Your task to perform on an android device: Empty the shopping cart on amazon. Search for "logitech g pro" on amazon, select the first entry, and add it to the cart. Image 0: 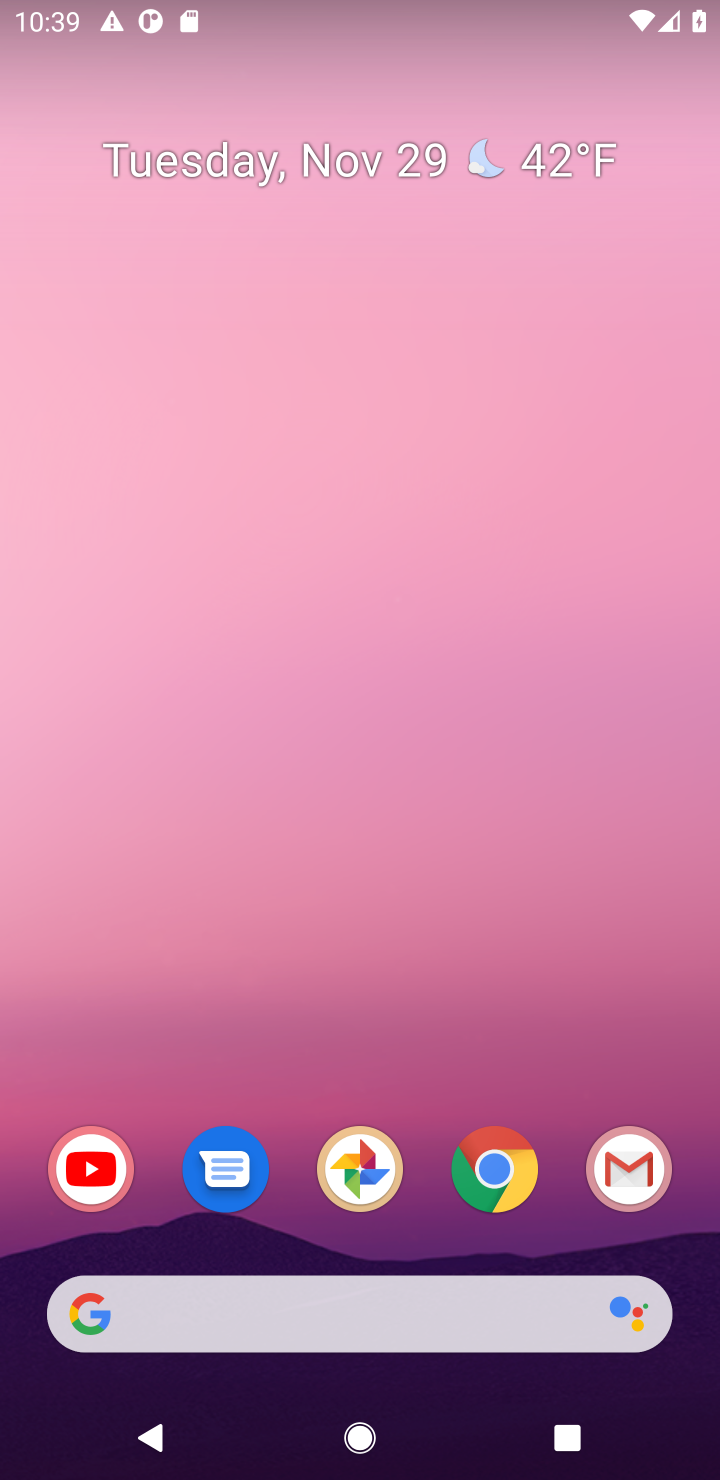
Step 0: click (400, 1336)
Your task to perform on an android device: Empty the shopping cart on amazon. Search for "logitech g pro" on amazon, select the first entry, and add it to the cart. Image 1: 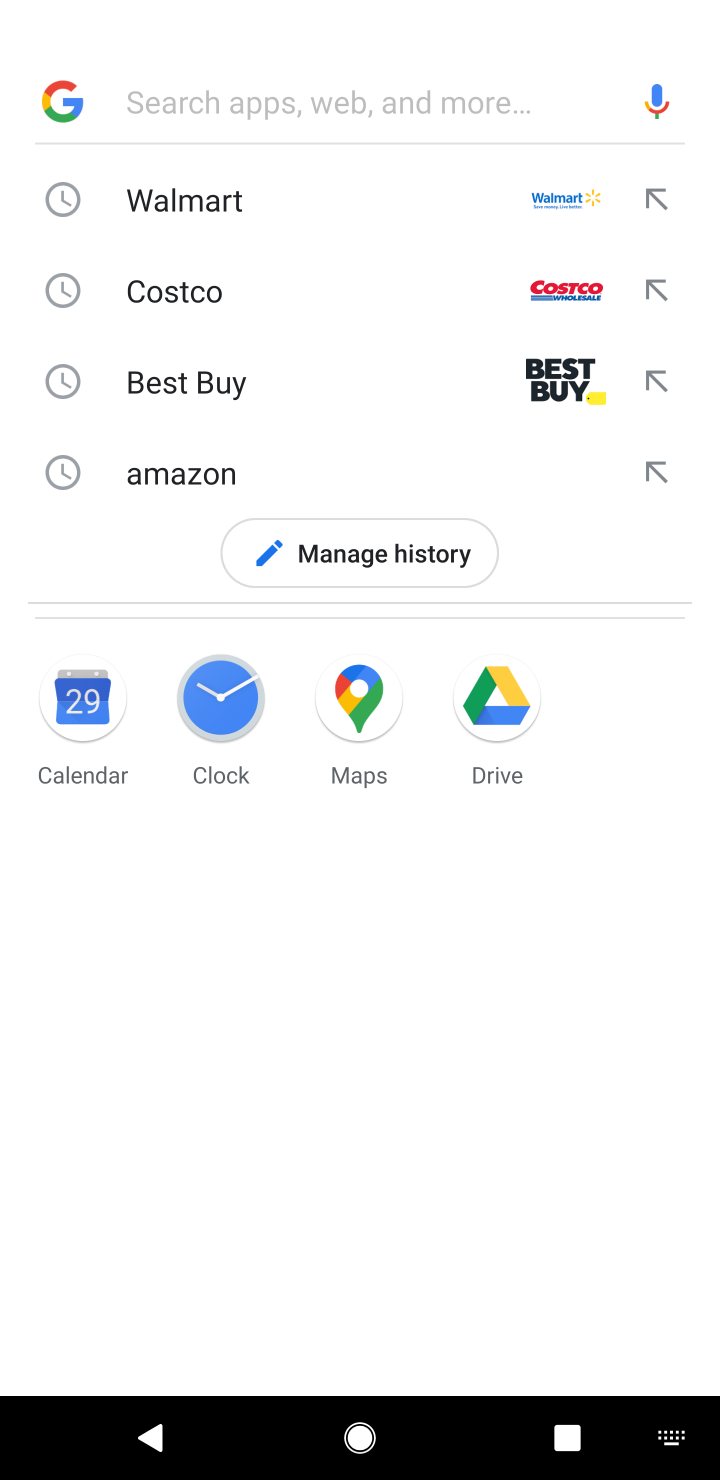
Step 1: type "amazon"
Your task to perform on an android device: Empty the shopping cart on amazon. Search for "logitech g pro" on amazon, select the first entry, and add it to the cart. Image 2: 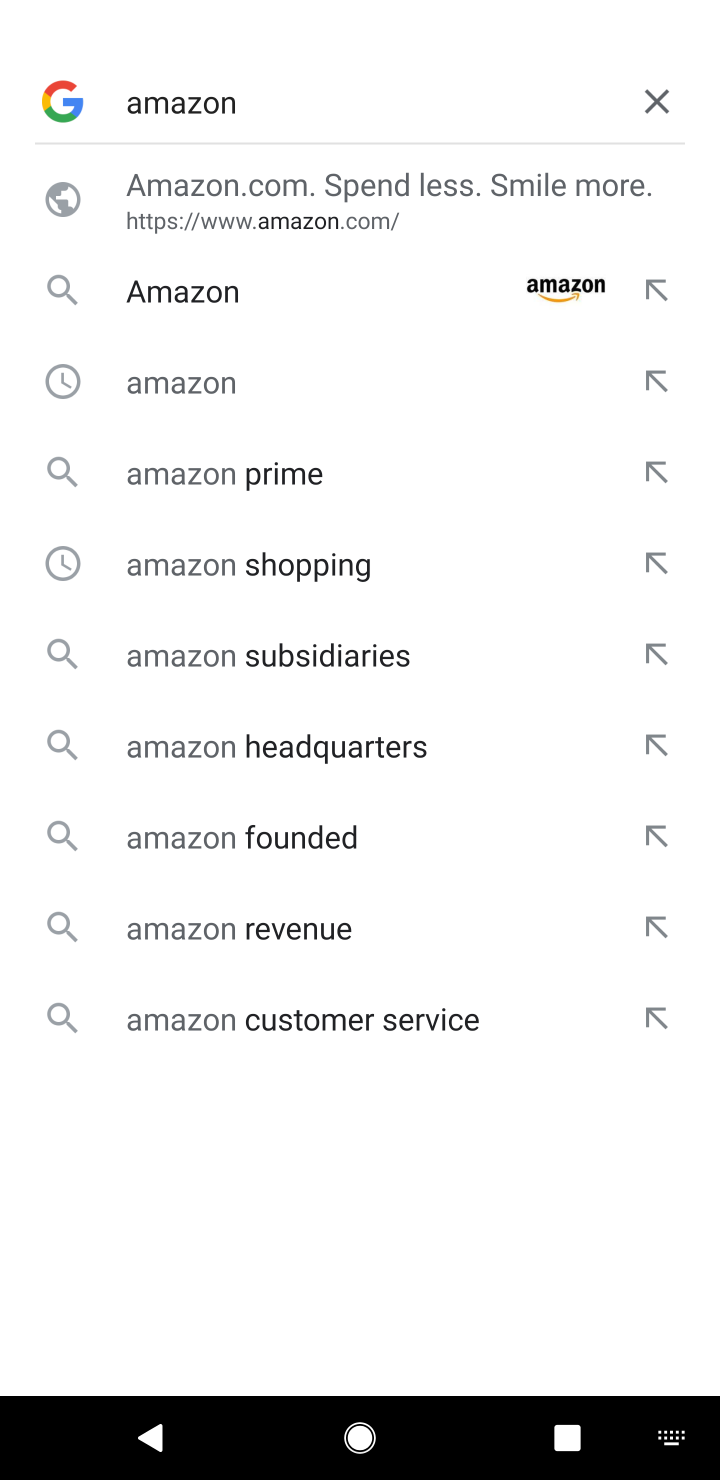
Step 2: click (224, 296)
Your task to perform on an android device: Empty the shopping cart on amazon. Search for "logitech g pro" on amazon, select the first entry, and add it to the cart. Image 3: 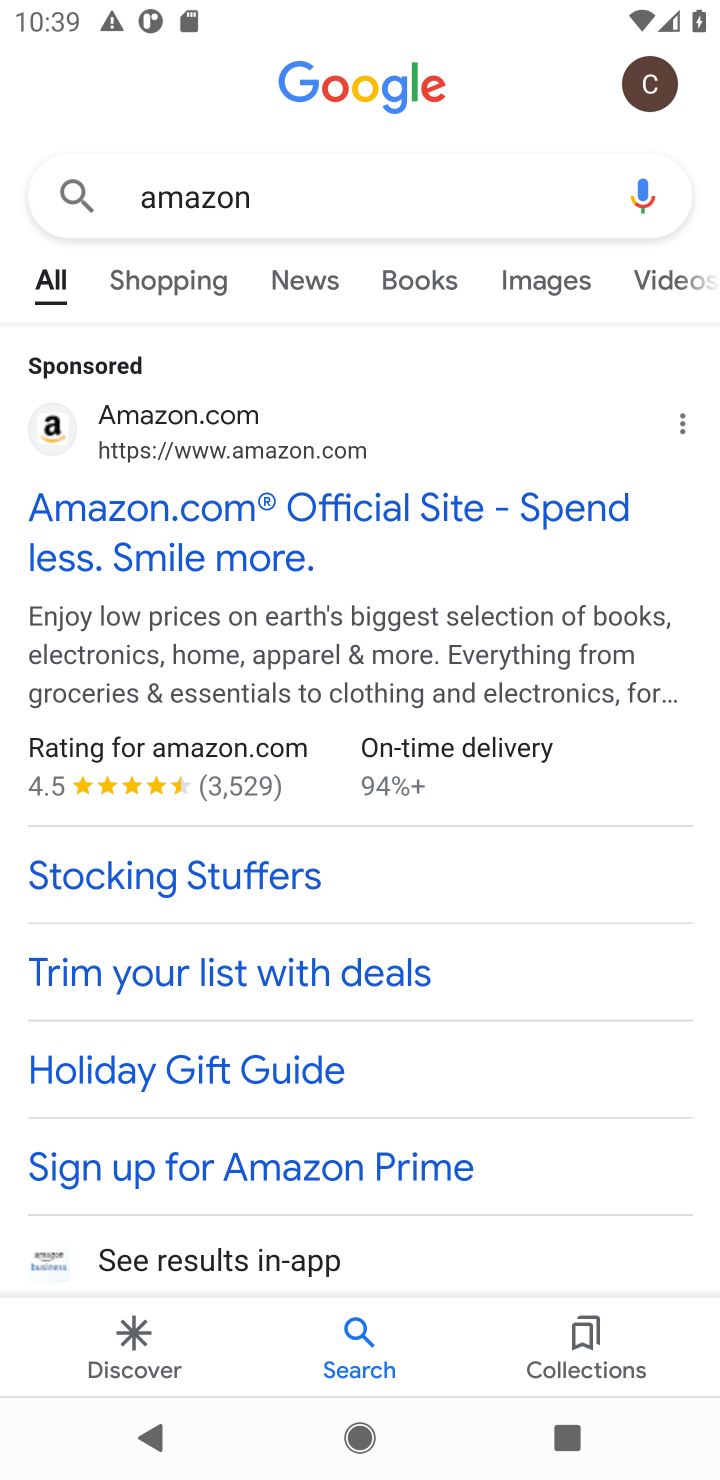
Step 3: click (166, 555)
Your task to perform on an android device: Empty the shopping cart on amazon. Search for "logitech g pro" on amazon, select the first entry, and add it to the cart. Image 4: 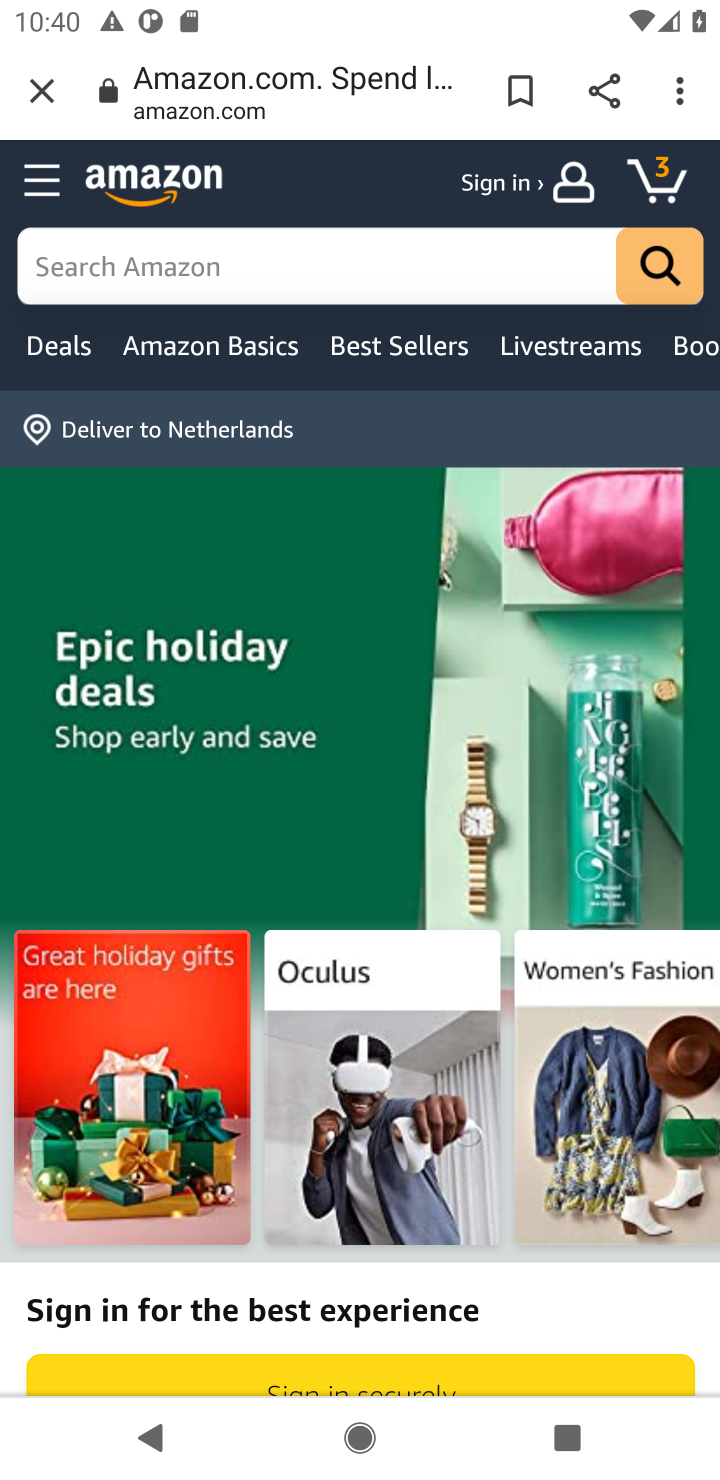
Step 4: click (223, 253)
Your task to perform on an android device: Empty the shopping cart on amazon. Search for "logitech g pro" on amazon, select the first entry, and add it to the cart. Image 5: 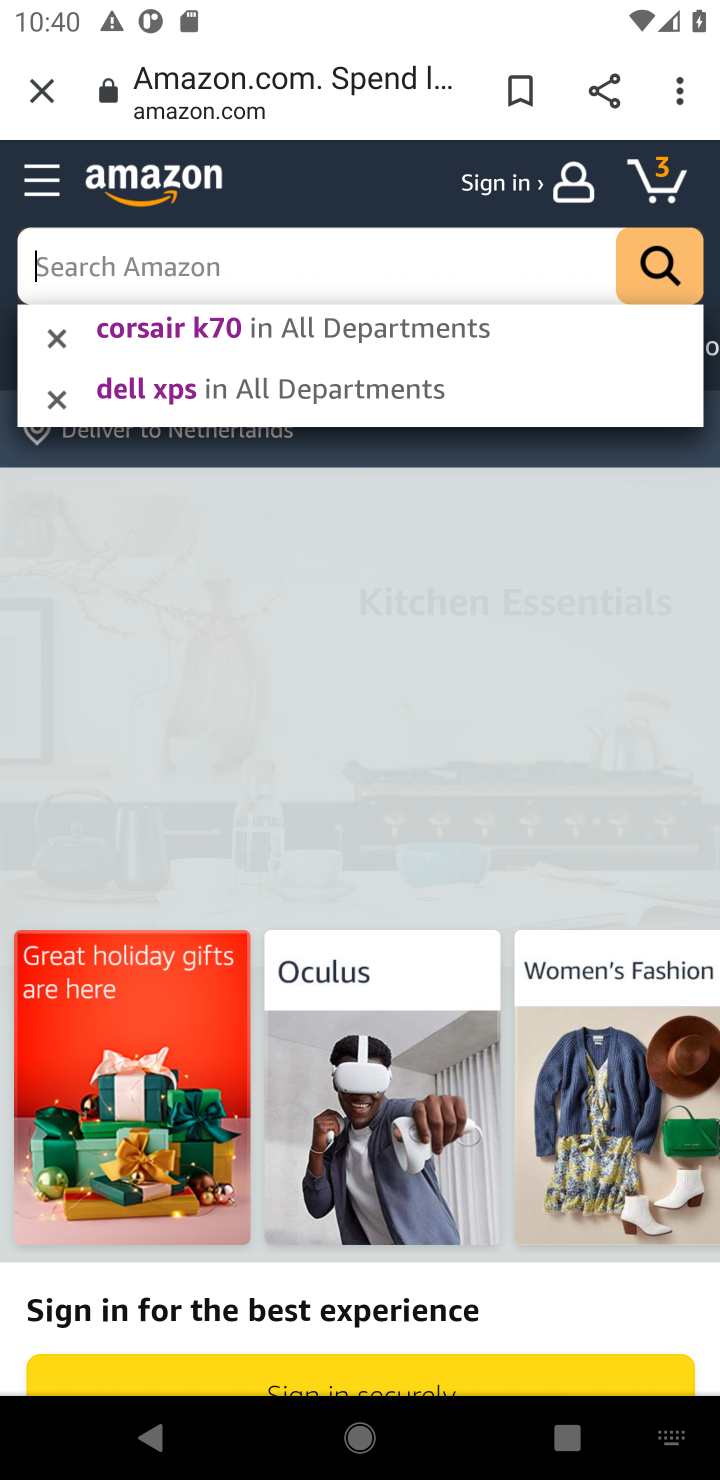
Step 5: type "logitech gpro"
Your task to perform on an android device: Empty the shopping cart on amazon. Search for "logitech g pro" on amazon, select the first entry, and add it to the cart. Image 6: 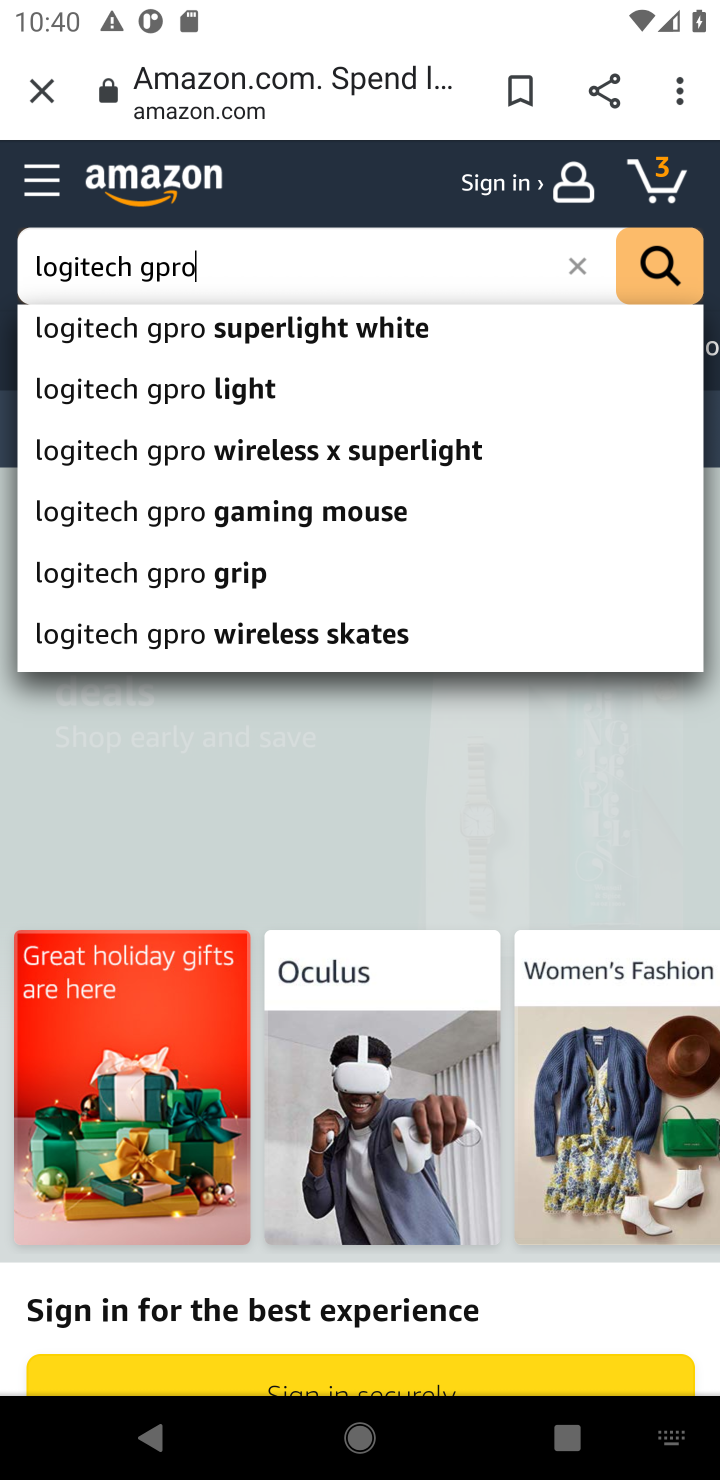
Step 6: click (140, 396)
Your task to perform on an android device: Empty the shopping cart on amazon. Search for "logitech g pro" on amazon, select the first entry, and add it to the cart. Image 7: 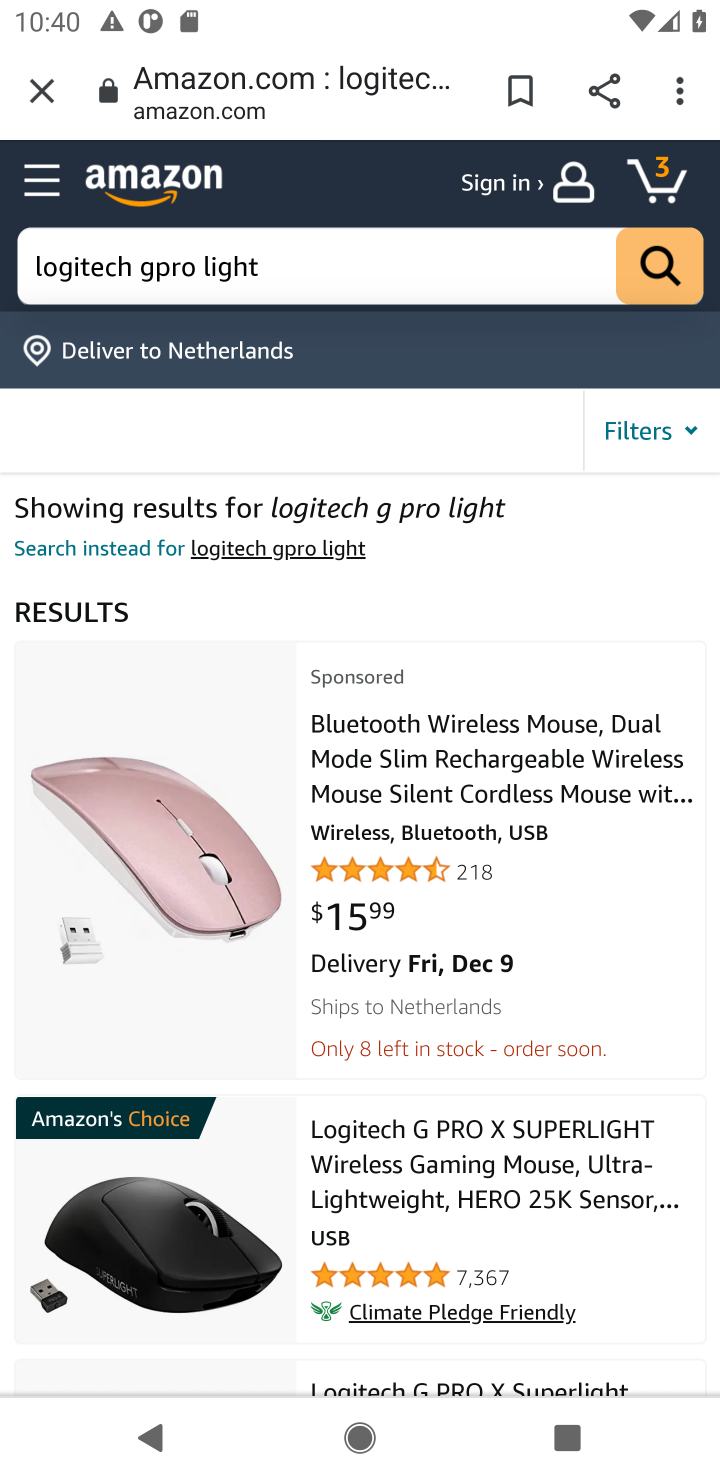
Step 7: click (483, 797)
Your task to perform on an android device: Empty the shopping cart on amazon. Search for "logitech g pro" on amazon, select the first entry, and add it to the cart. Image 8: 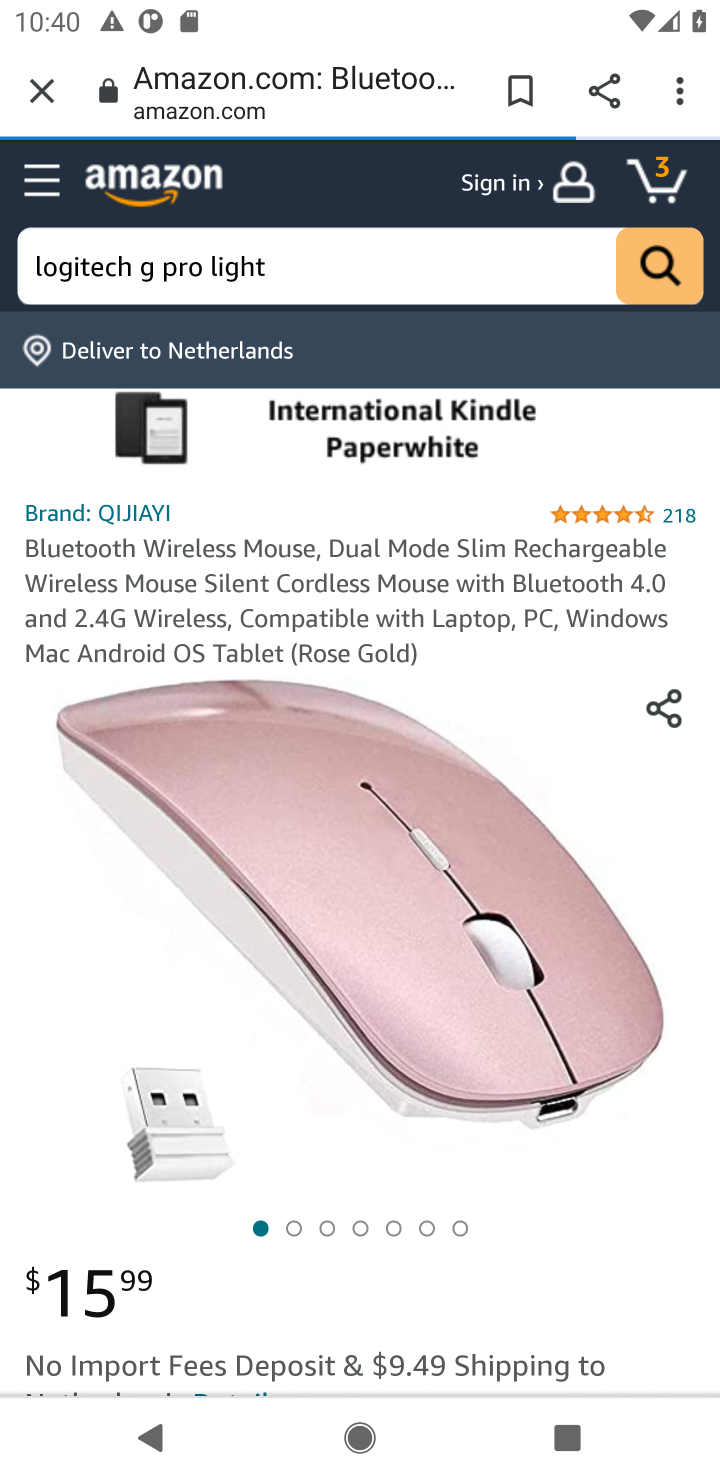
Step 8: drag from (541, 1290) to (447, 432)
Your task to perform on an android device: Empty the shopping cart on amazon. Search for "logitech g pro" on amazon, select the first entry, and add it to the cart. Image 9: 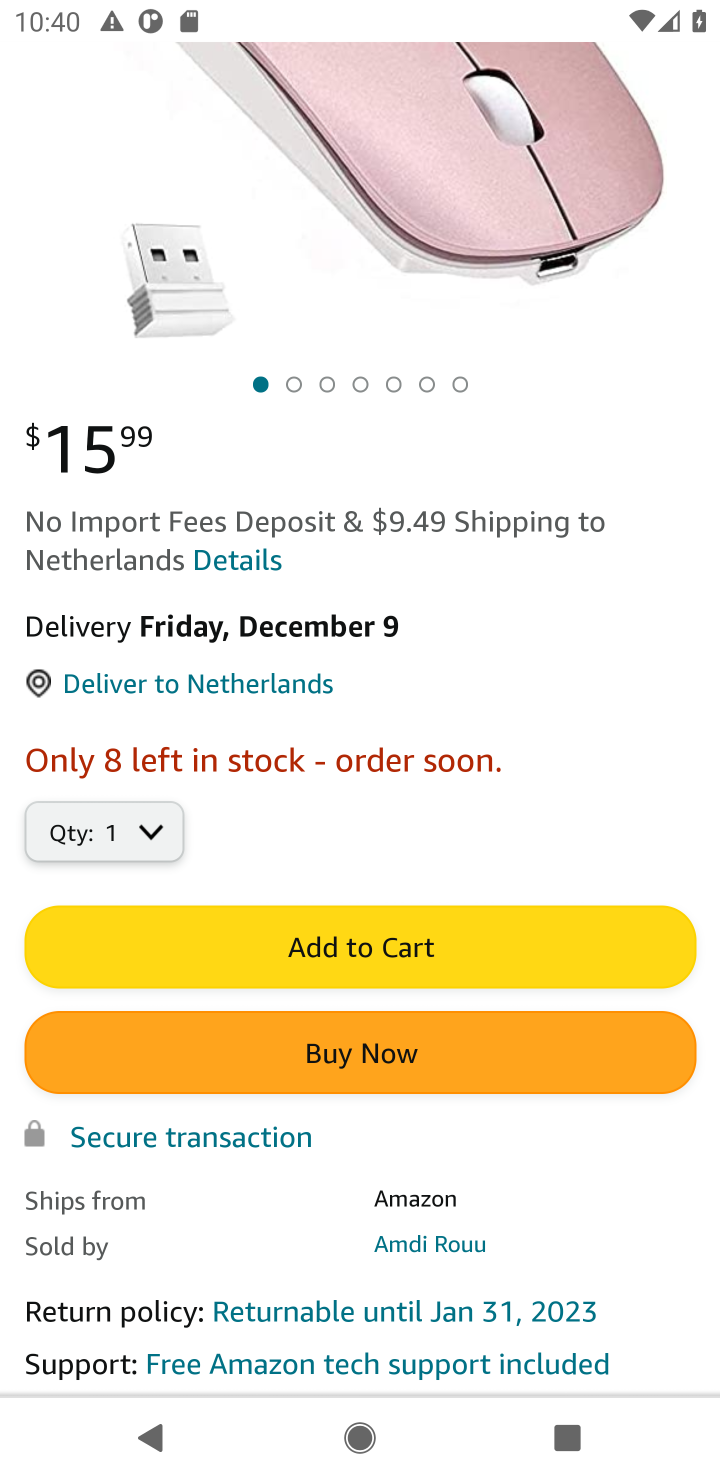
Step 9: click (428, 933)
Your task to perform on an android device: Empty the shopping cart on amazon. Search for "logitech g pro" on amazon, select the first entry, and add it to the cart. Image 10: 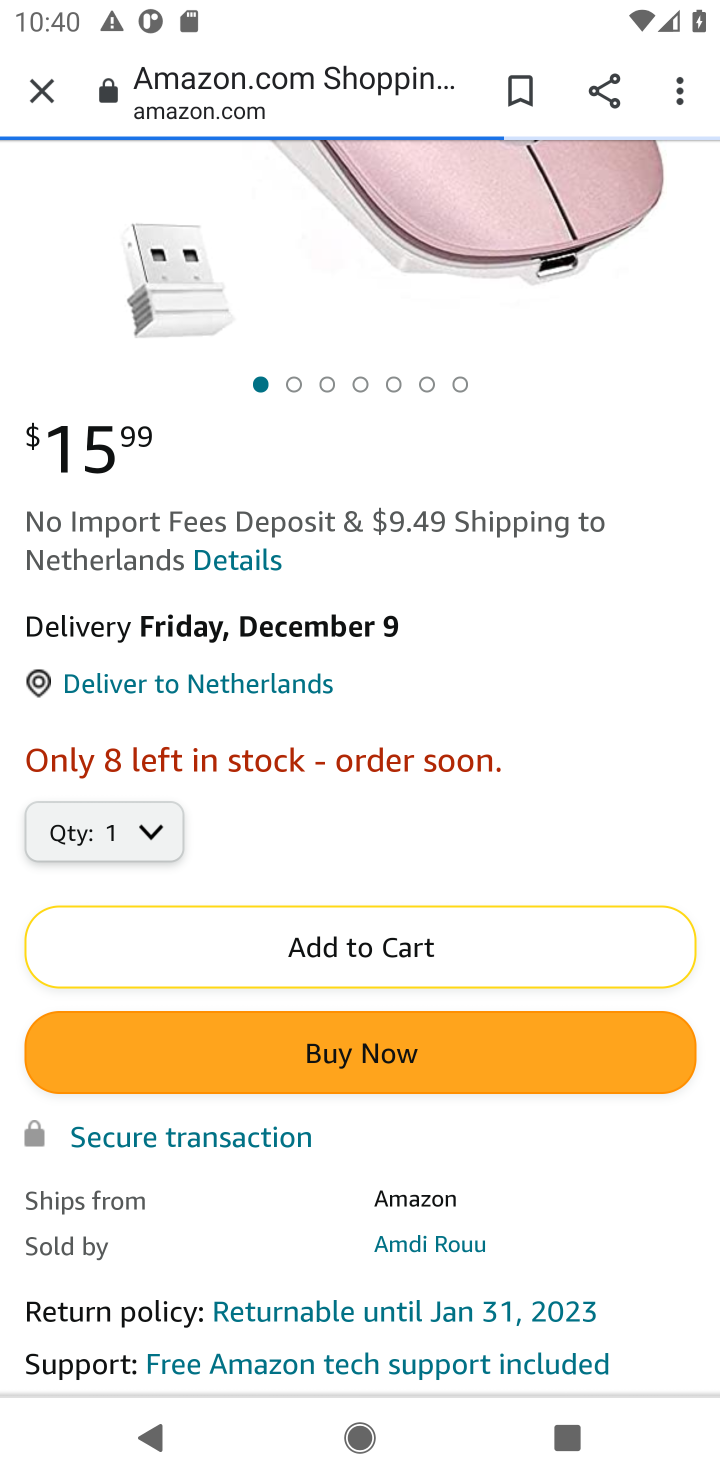
Step 10: task complete